Your task to perform on an android device: Open Yahoo.com Image 0: 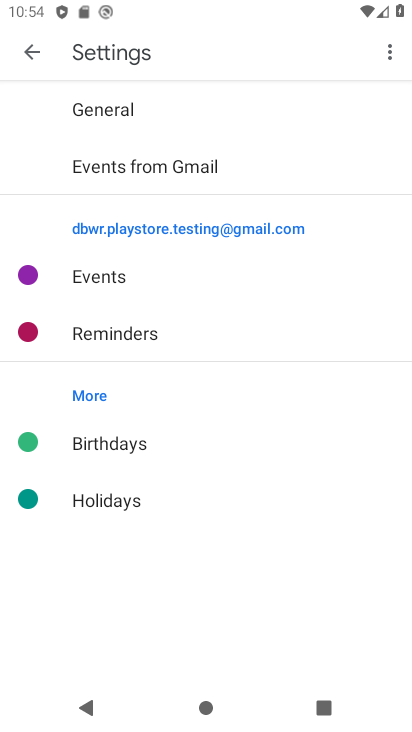
Step 0: press home button
Your task to perform on an android device: Open Yahoo.com Image 1: 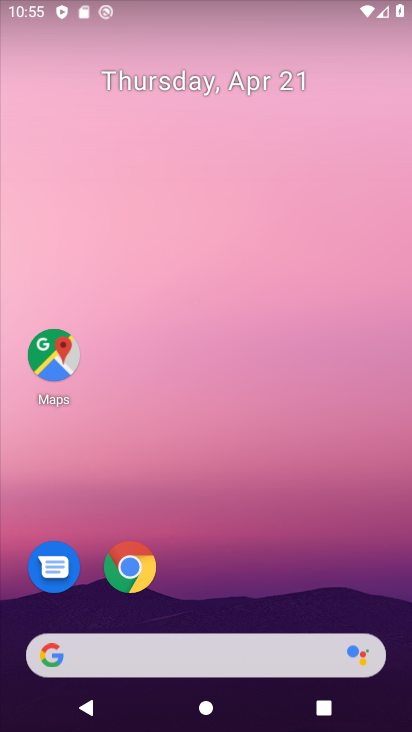
Step 1: click (128, 570)
Your task to perform on an android device: Open Yahoo.com Image 2: 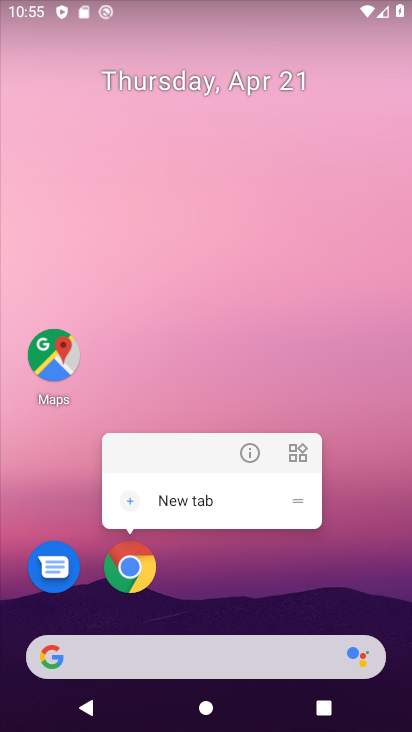
Step 2: click (177, 507)
Your task to perform on an android device: Open Yahoo.com Image 3: 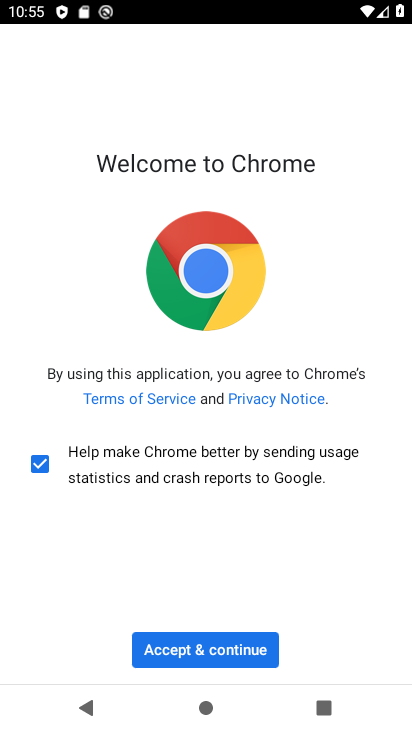
Step 3: click (212, 659)
Your task to perform on an android device: Open Yahoo.com Image 4: 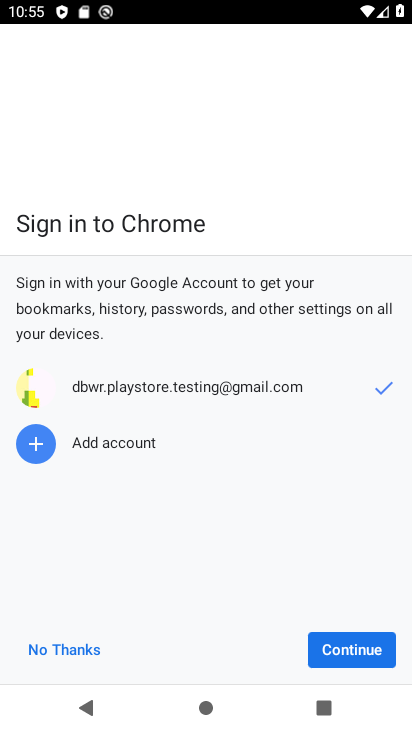
Step 4: click (335, 659)
Your task to perform on an android device: Open Yahoo.com Image 5: 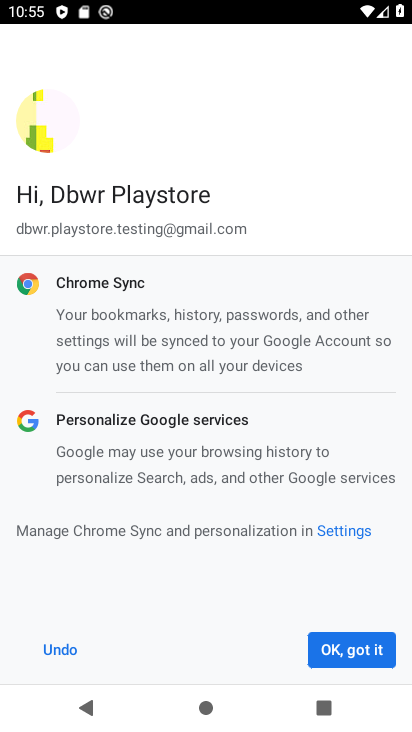
Step 5: click (339, 661)
Your task to perform on an android device: Open Yahoo.com Image 6: 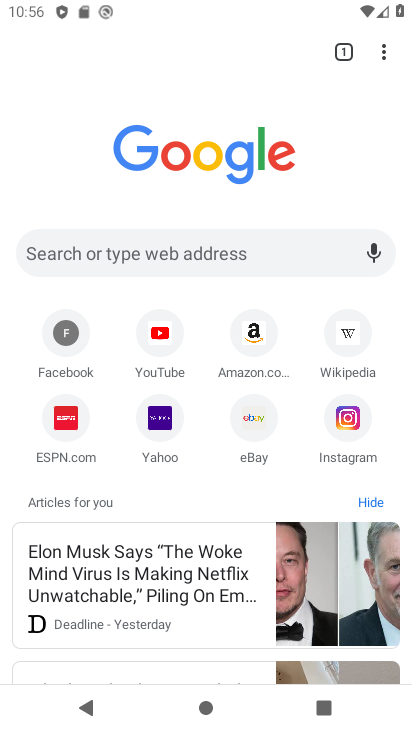
Step 6: click (172, 412)
Your task to perform on an android device: Open Yahoo.com Image 7: 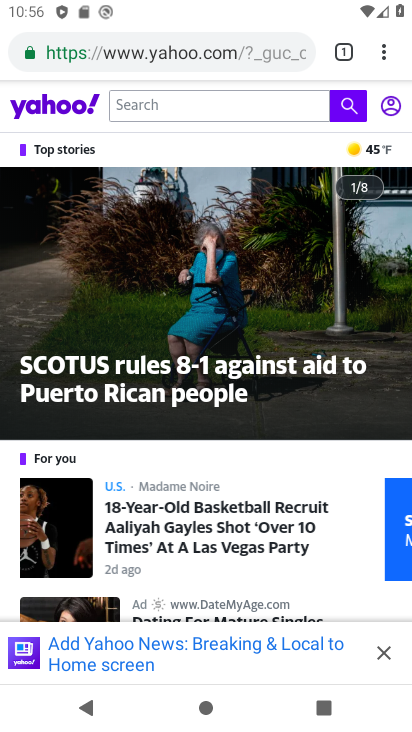
Step 7: task complete